Your task to perform on an android device: Go to notification settings Image 0: 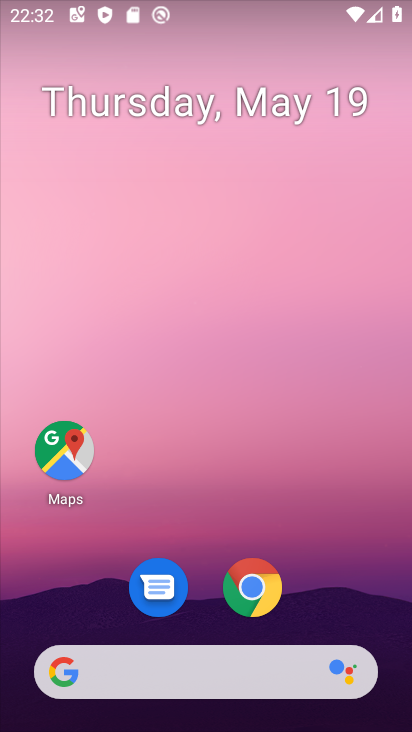
Step 0: drag from (227, 696) to (218, 22)
Your task to perform on an android device: Go to notification settings Image 1: 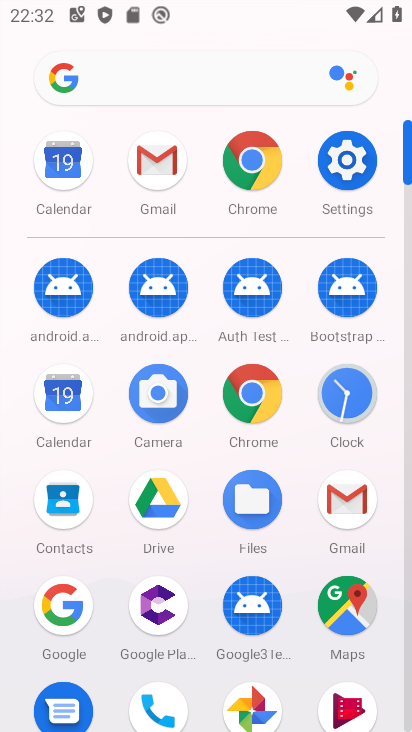
Step 1: click (361, 177)
Your task to perform on an android device: Go to notification settings Image 2: 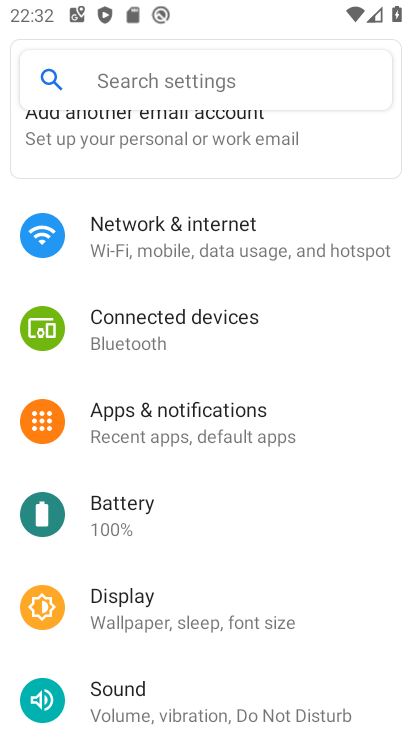
Step 2: click (207, 96)
Your task to perform on an android device: Go to notification settings Image 3: 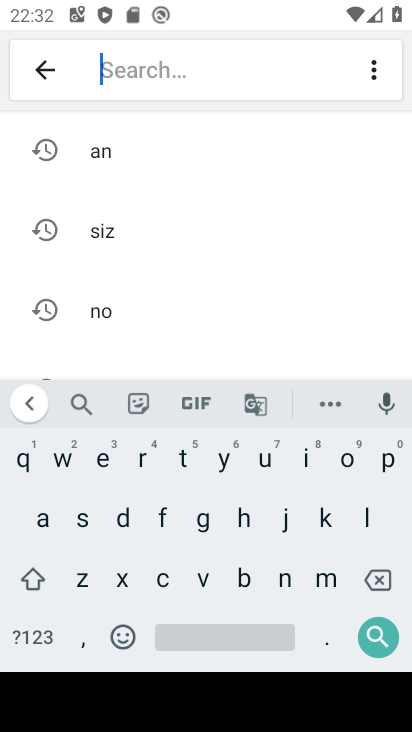
Step 3: click (167, 321)
Your task to perform on an android device: Go to notification settings Image 4: 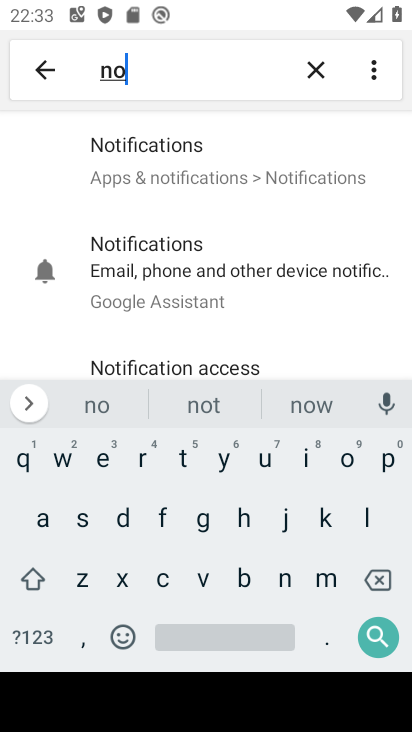
Step 4: click (163, 177)
Your task to perform on an android device: Go to notification settings Image 5: 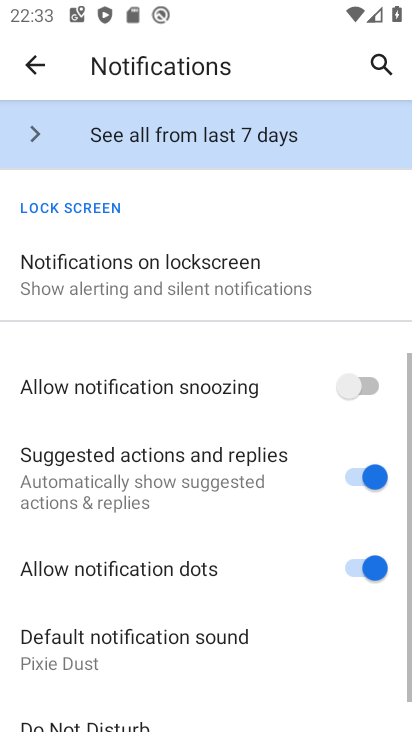
Step 5: click (180, 284)
Your task to perform on an android device: Go to notification settings Image 6: 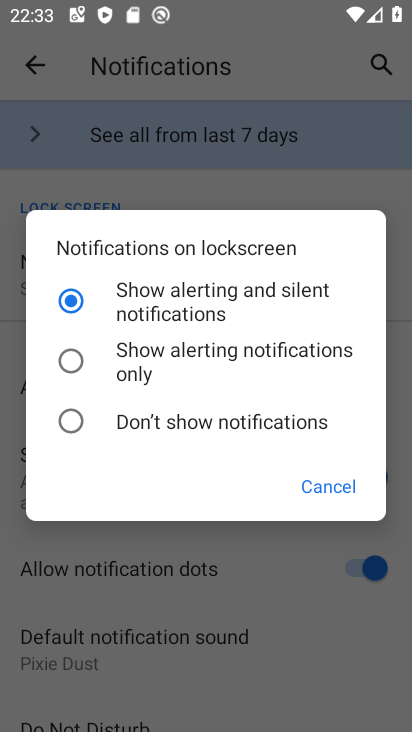
Step 6: task complete